Your task to perform on an android device: find which apps use the phone's location Image 0: 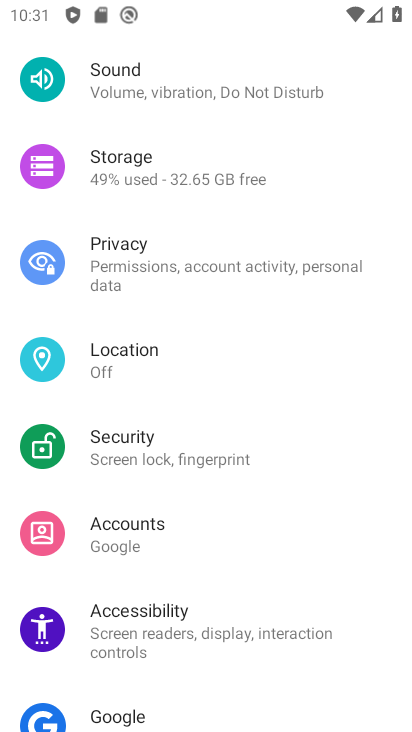
Step 0: click (96, 361)
Your task to perform on an android device: find which apps use the phone's location Image 1: 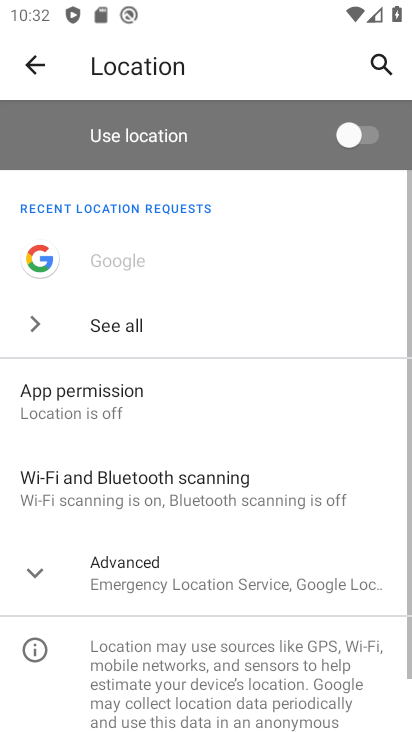
Step 1: click (149, 398)
Your task to perform on an android device: find which apps use the phone's location Image 2: 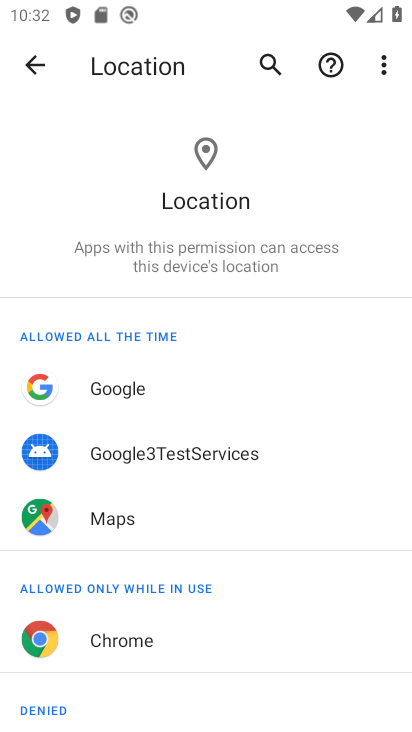
Step 2: drag from (152, 621) to (266, 63)
Your task to perform on an android device: find which apps use the phone's location Image 3: 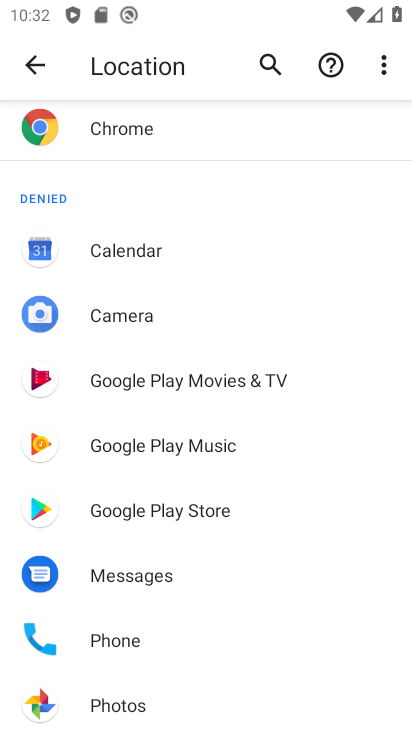
Step 3: click (95, 648)
Your task to perform on an android device: find which apps use the phone's location Image 4: 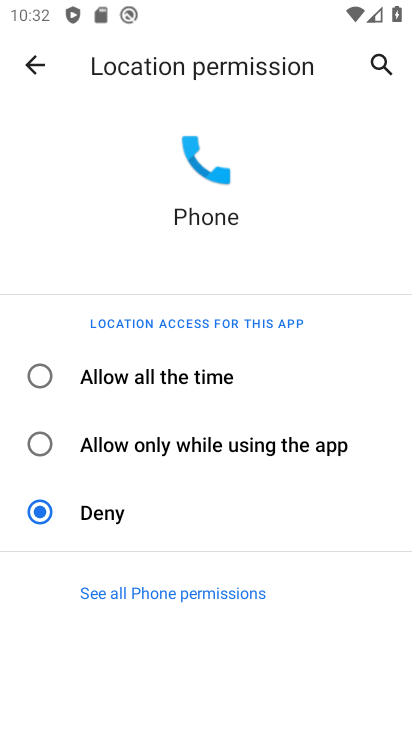
Step 4: click (108, 371)
Your task to perform on an android device: find which apps use the phone's location Image 5: 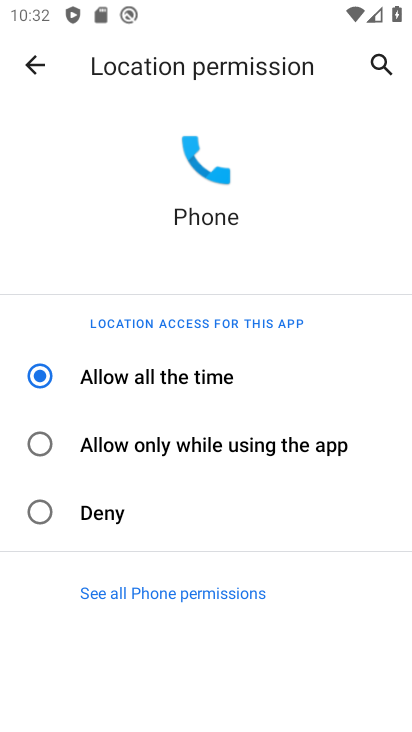
Step 5: task complete